Your task to perform on an android device: Open the stopwatch Image 0: 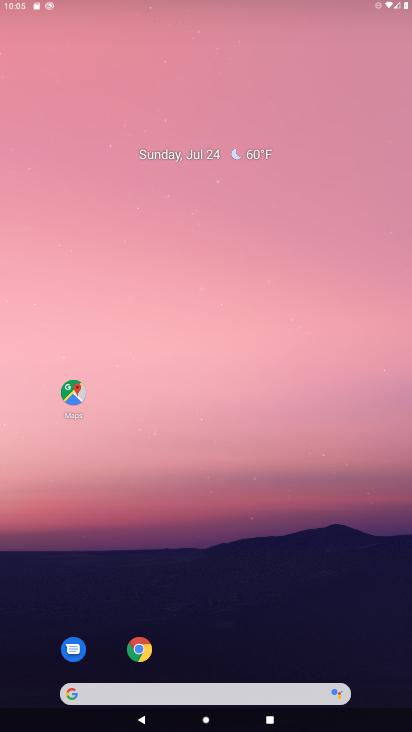
Step 0: drag from (275, 602) to (184, 77)
Your task to perform on an android device: Open the stopwatch Image 1: 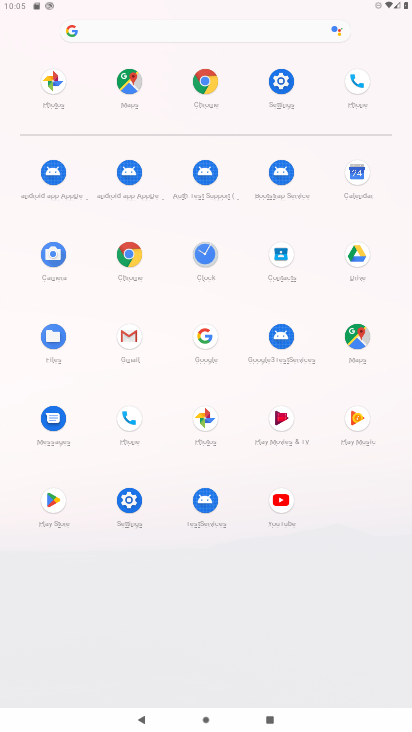
Step 1: click (199, 258)
Your task to perform on an android device: Open the stopwatch Image 2: 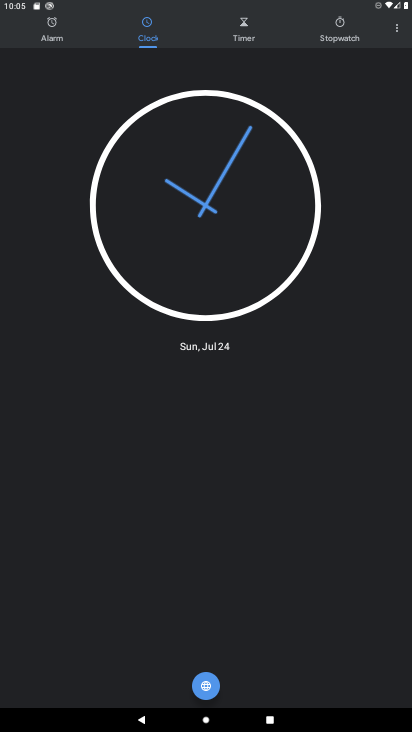
Step 2: click (347, 36)
Your task to perform on an android device: Open the stopwatch Image 3: 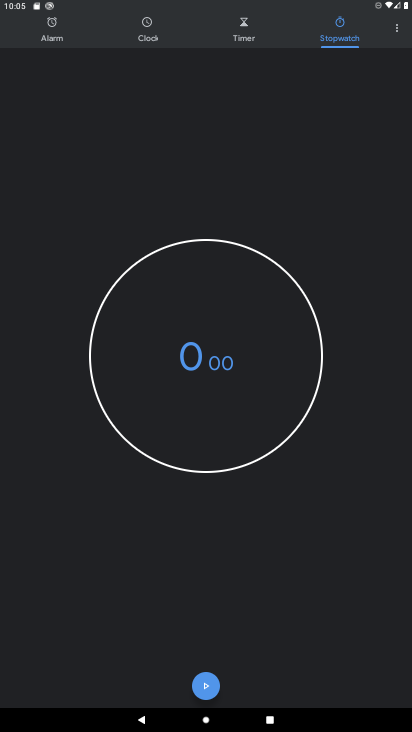
Step 3: click (216, 686)
Your task to perform on an android device: Open the stopwatch Image 4: 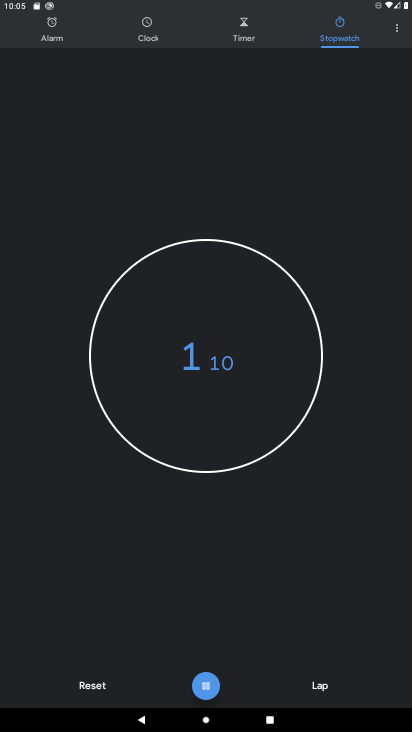
Step 4: click (216, 686)
Your task to perform on an android device: Open the stopwatch Image 5: 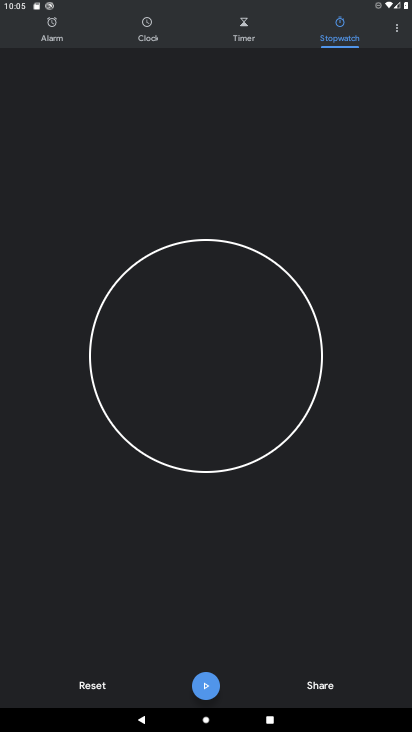
Step 5: task complete